Your task to perform on an android device: add a contact Image 0: 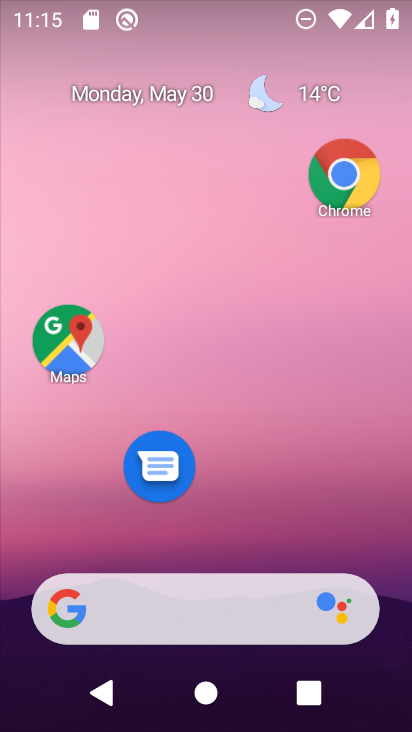
Step 0: drag from (250, 492) to (208, 91)
Your task to perform on an android device: add a contact Image 1: 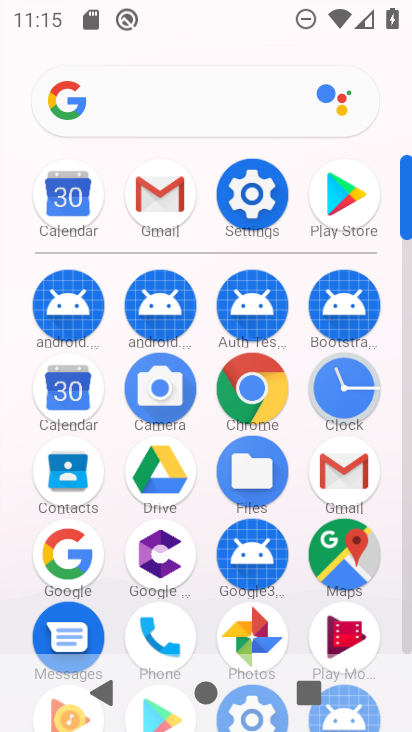
Step 1: click (57, 475)
Your task to perform on an android device: add a contact Image 2: 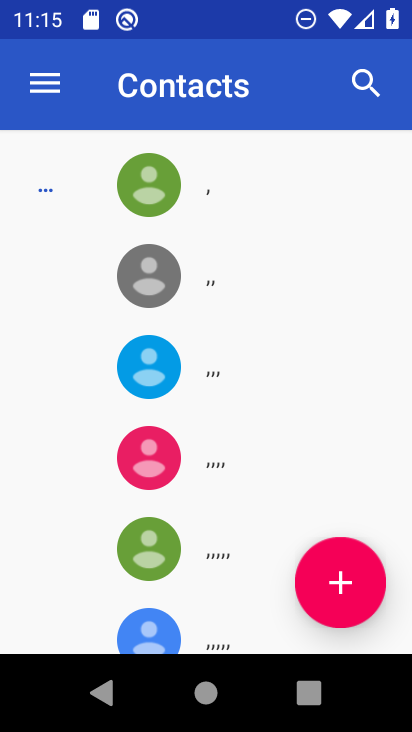
Step 2: click (361, 581)
Your task to perform on an android device: add a contact Image 3: 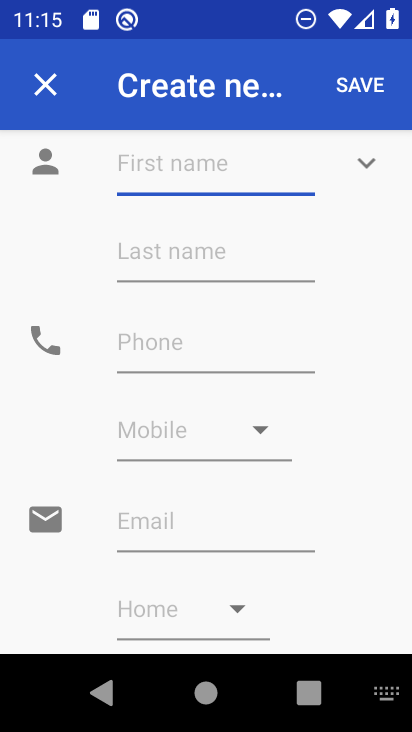
Step 3: type "shggj"
Your task to perform on an android device: add a contact Image 4: 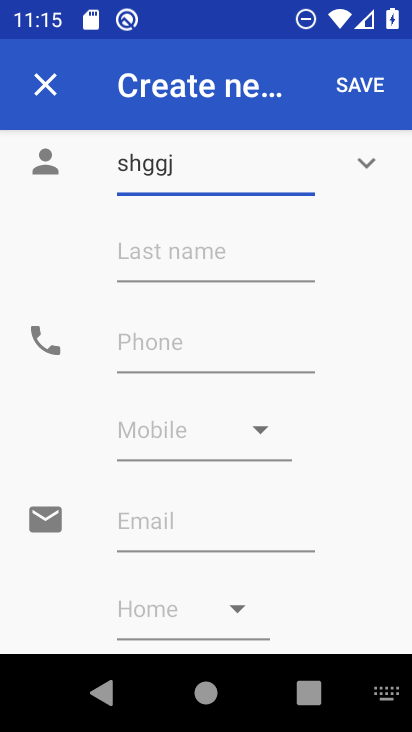
Step 4: click (149, 332)
Your task to perform on an android device: add a contact Image 5: 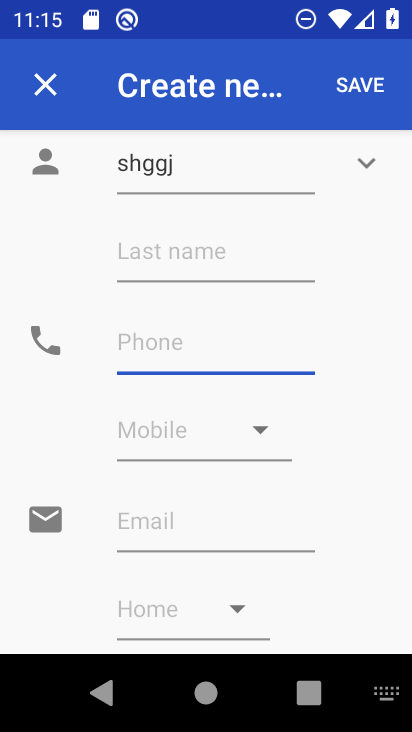
Step 5: type "91236567556"
Your task to perform on an android device: add a contact Image 6: 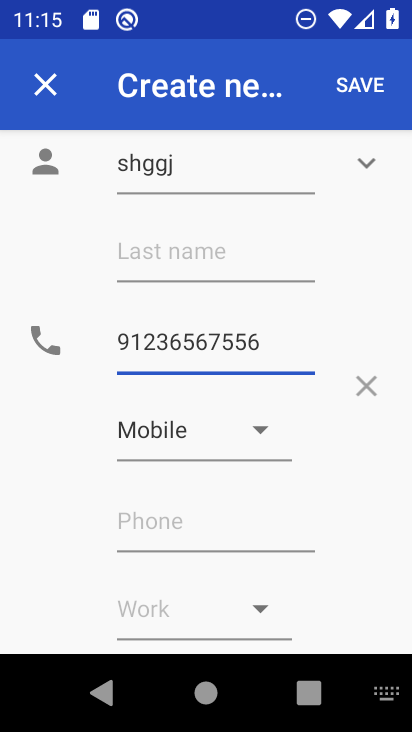
Step 6: click (364, 85)
Your task to perform on an android device: add a contact Image 7: 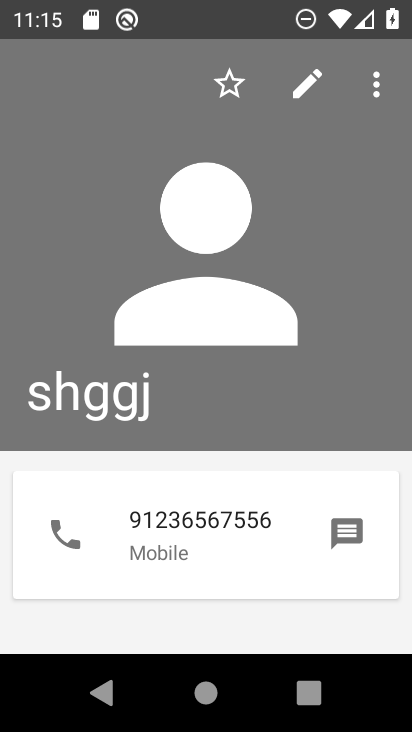
Step 7: task complete